Your task to perform on an android device: change notifications settings Image 0: 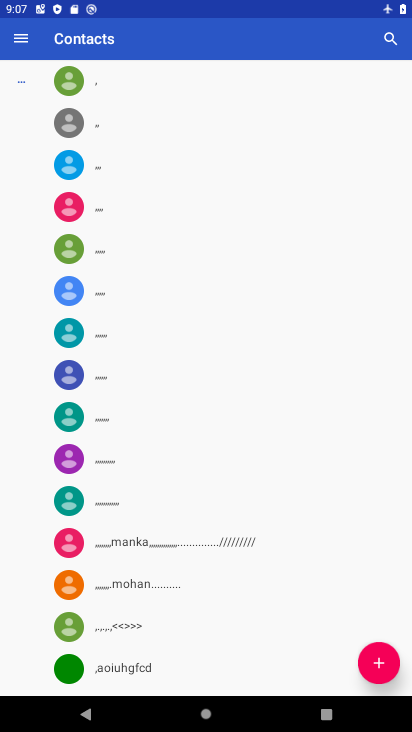
Step 0: press home button
Your task to perform on an android device: change notifications settings Image 1: 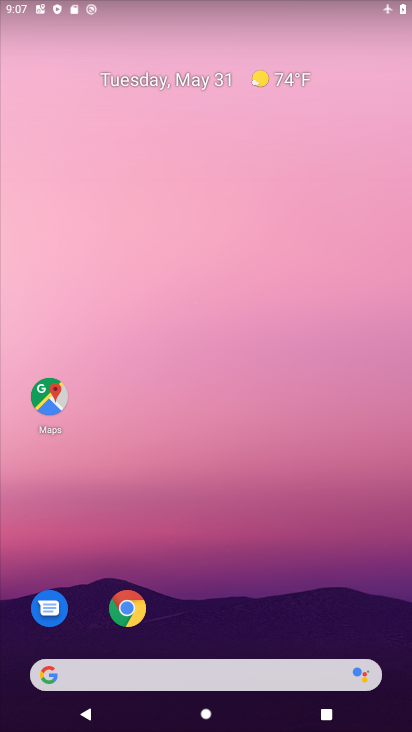
Step 1: drag from (218, 634) to (184, 29)
Your task to perform on an android device: change notifications settings Image 2: 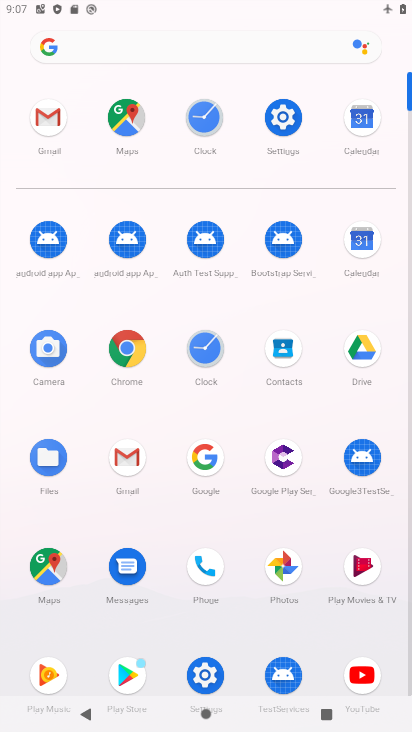
Step 2: click (280, 128)
Your task to perform on an android device: change notifications settings Image 3: 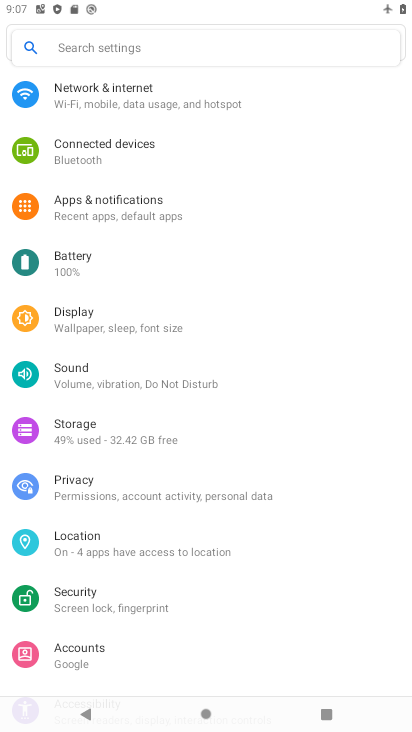
Step 3: click (95, 183)
Your task to perform on an android device: change notifications settings Image 4: 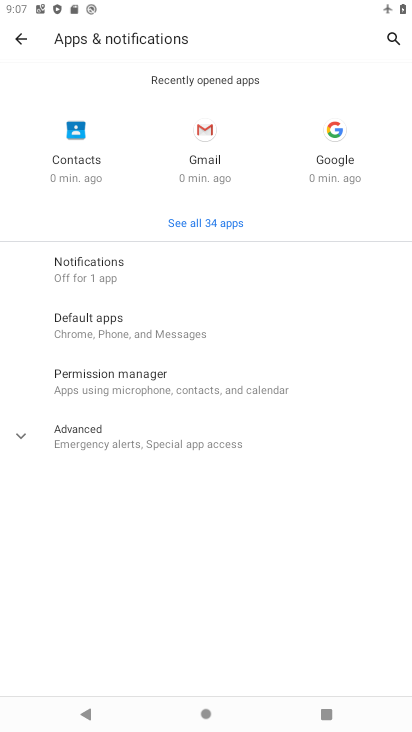
Step 4: click (96, 256)
Your task to perform on an android device: change notifications settings Image 5: 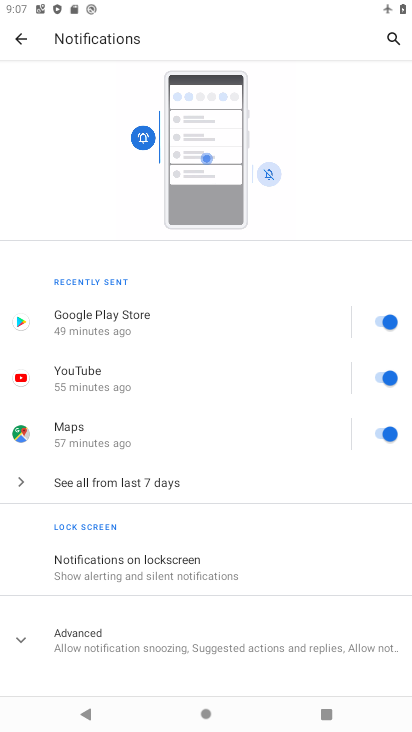
Step 5: click (127, 478)
Your task to perform on an android device: change notifications settings Image 6: 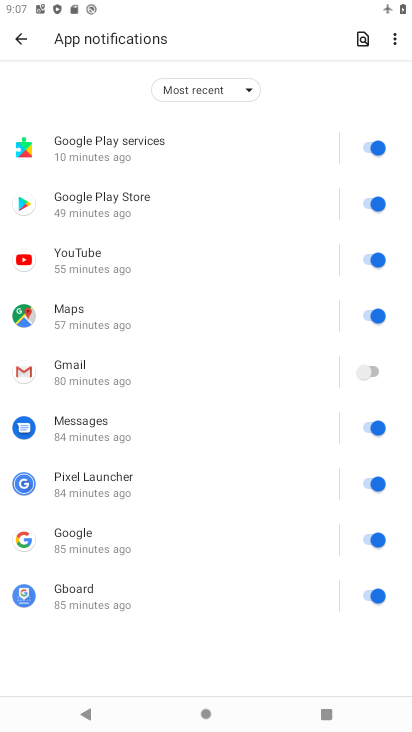
Step 6: click (127, 478)
Your task to perform on an android device: change notifications settings Image 7: 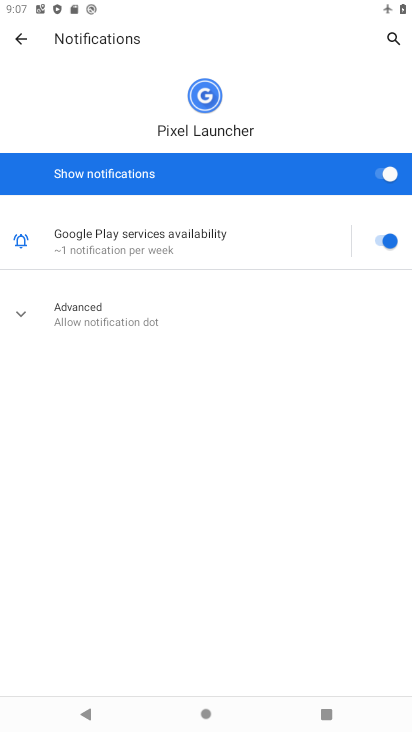
Step 7: click (73, 36)
Your task to perform on an android device: change notifications settings Image 8: 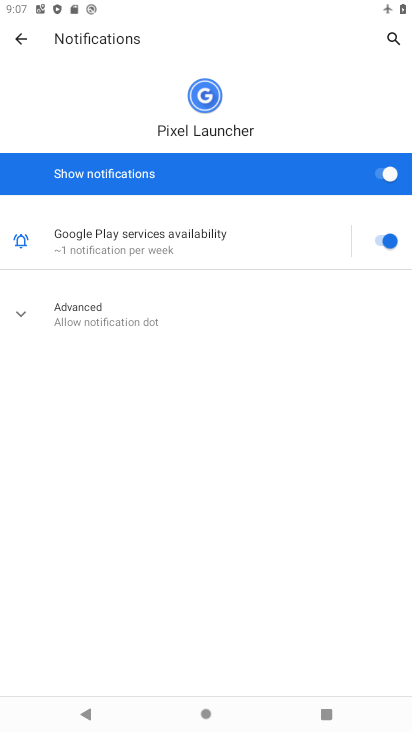
Step 8: click (23, 35)
Your task to perform on an android device: change notifications settings Image 9: 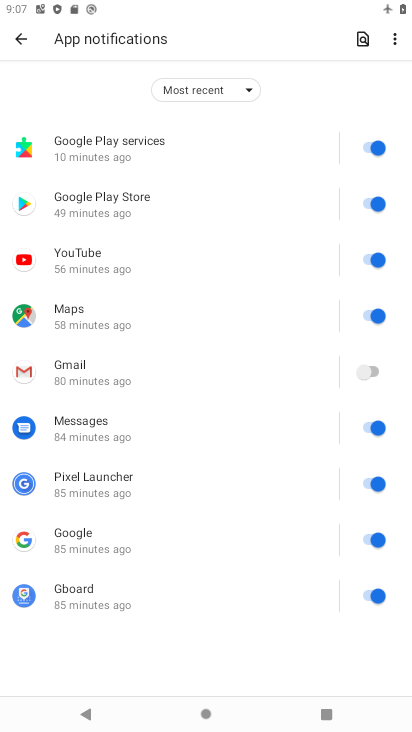
Step 9: click (186, 107)
Your task to perform on an android device: change notifications settings Image 10: 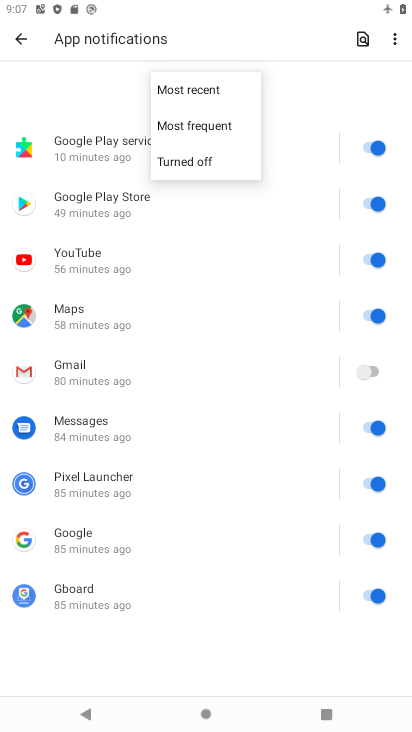
Step 10: click (195, 151)
Your task to perform on an android device: change notifications settings Image 11: 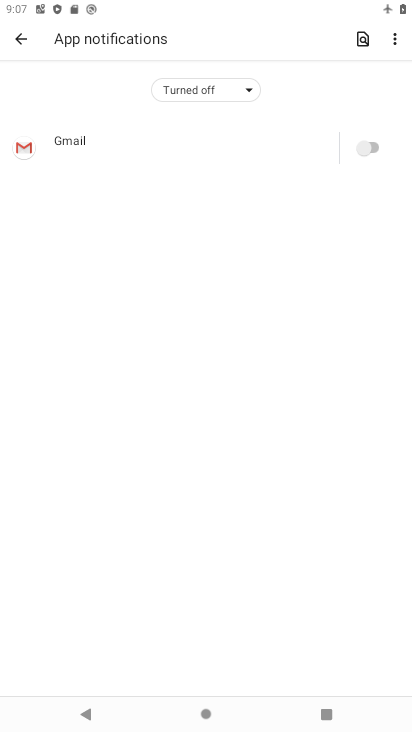
Step 11: task complete